Your task to perform on an android device: Open settings on Google Maps Image 0: 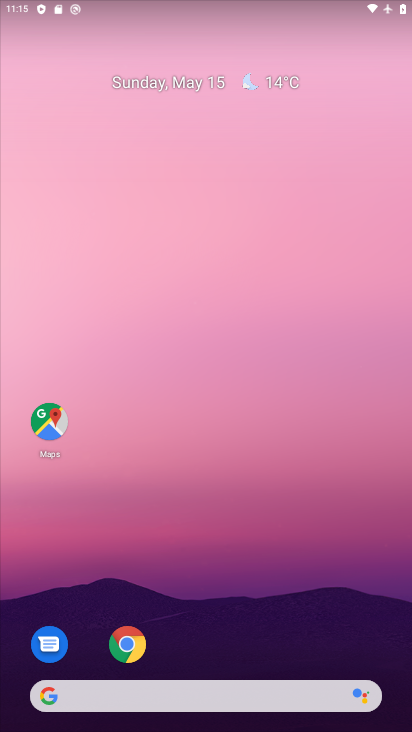
Step 0: click (45, 418)
Your task to perform on an android device: Open settings on Google Maps Image 1: 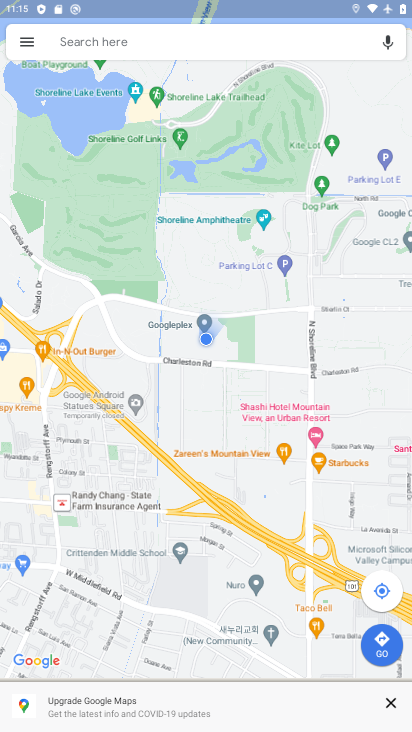
Step 1: click (30, 43)
Your task to perform on an android device: Open settings on Google Maps Image 2: 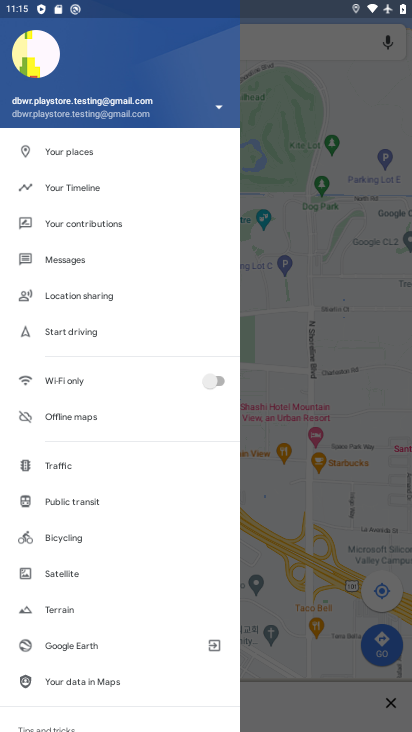
Step 2: drag from (119, 676) to (119, 408)
Your task to perform on an android device: Open settings on Google Maps Image 3: 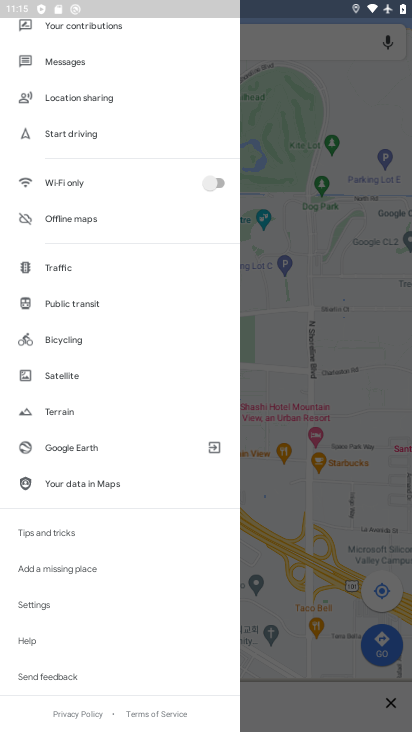
Step 3: click (29, 602)
Your task to perform on an android device: Open settings on Google Maps Image 4: 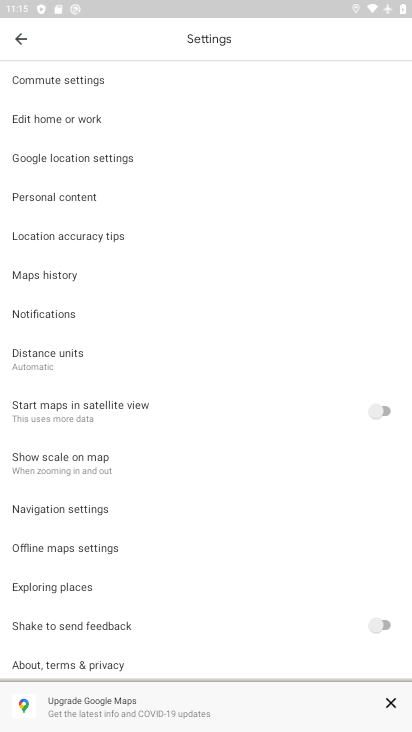
Step 4: task complete